Your task to perform on an android device: turn notification dots off Image 0: 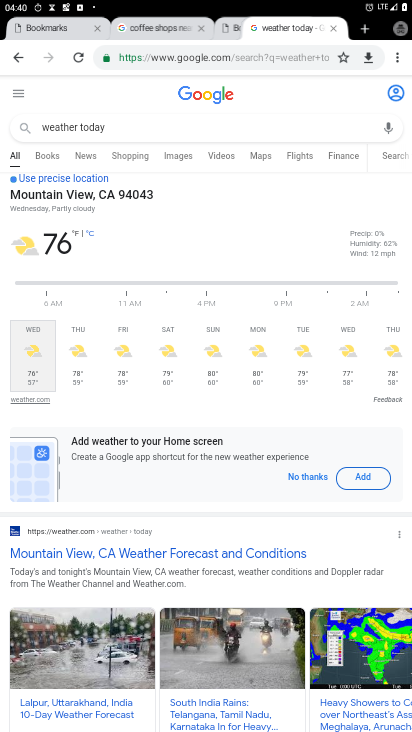
Step 0: press home button
Your task to perform on an android device: turn notification dots off Image 1: 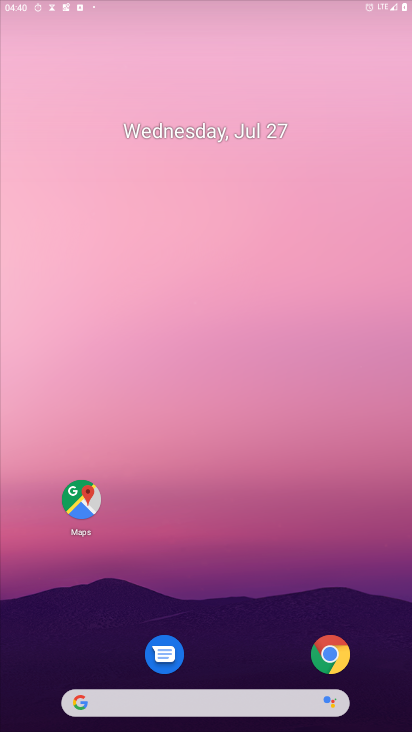
Step 1: drag from (233, 674) to (310, 6)
Your task to perform on an android device: turn notification dots off Image 2: 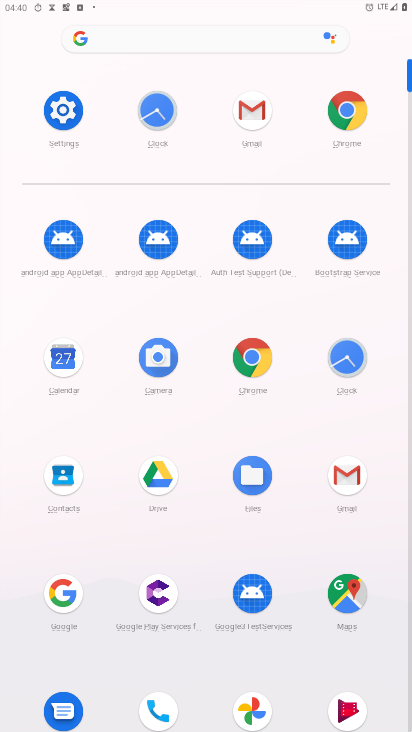
Step 2: click (56, 105)
Your task to perform on an android device: turn notification dots off Image 3: 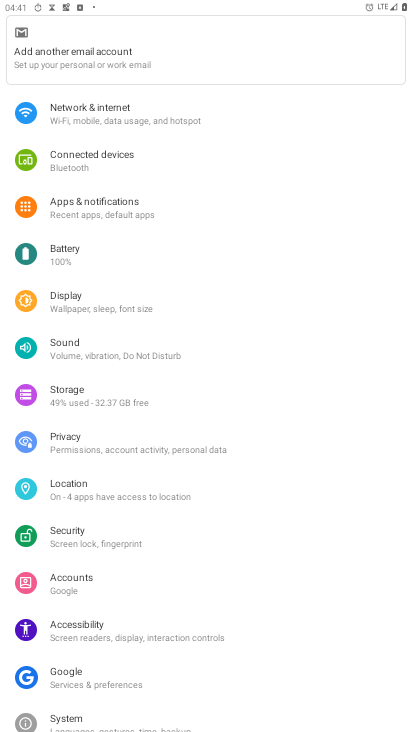
Step 3: click (101, 213)
Your task to perform on an android device: turn notification dots off Image 4: 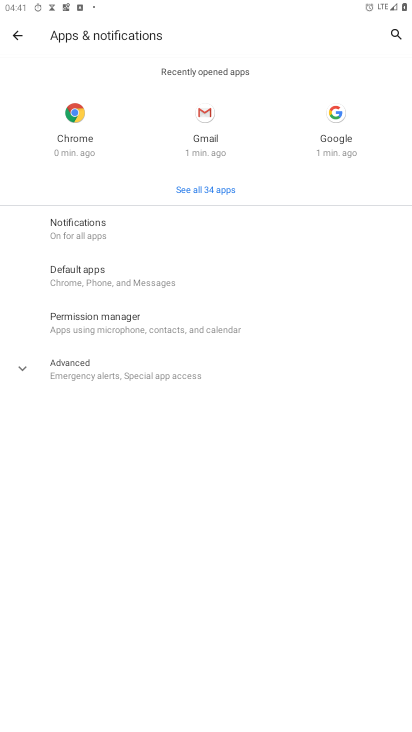
Step 4: click (109, 229)
Your task to perform on an android device: turn notification dots off Image 5: 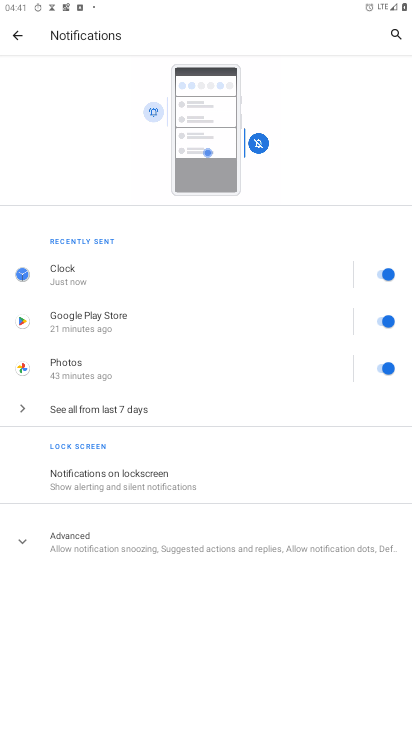
Step 5: click (176, 540)
Your task to perform on an android device: turn notification dots off Image 6: 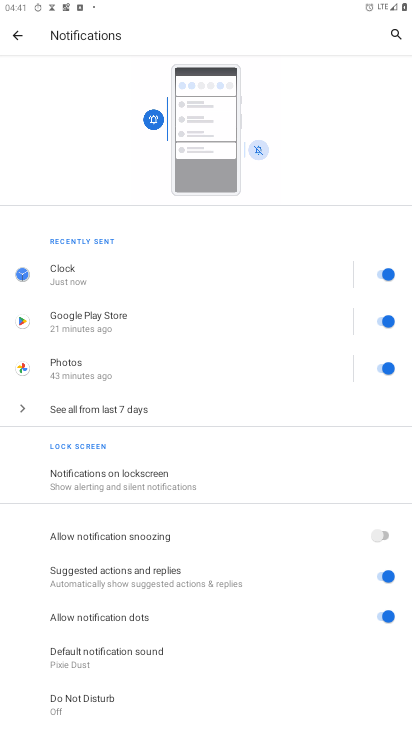
Step 6: click (384, 614)
Your task to perform on an android device: turn notification dots off Image 7: 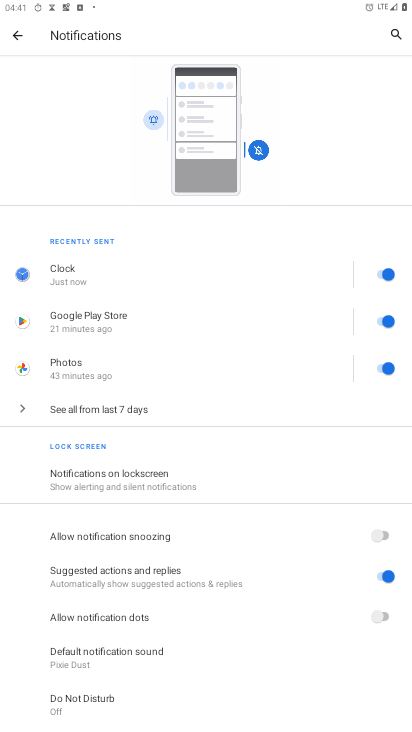
Step 7: task complete